Your task to perform on an android device: allow cookies in the chrome app Image 0: 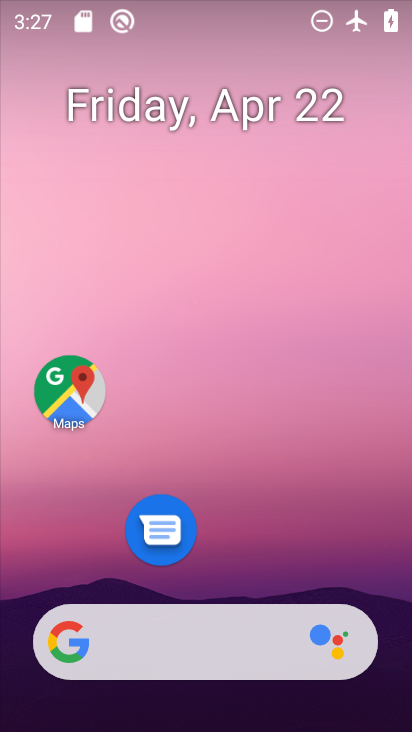
Step 0: drag from (235, 492) to (226, 43)
Your task to perform on an android device: allow cookies in the chrome app Image 1: 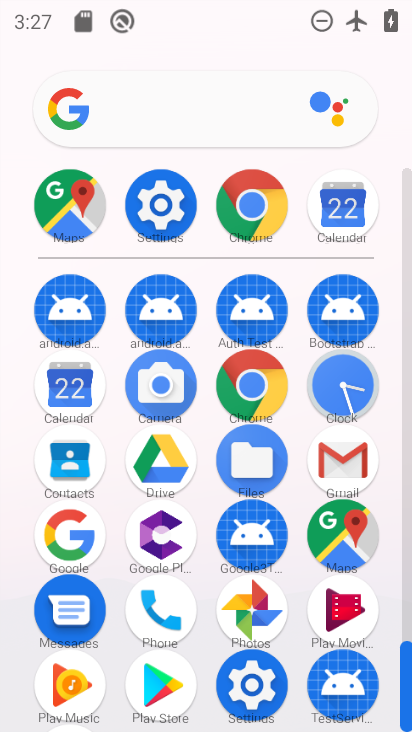
Step 1: click (253, 199)
Your task to perform on an android device: allow cookies in the chrome app Image 2: 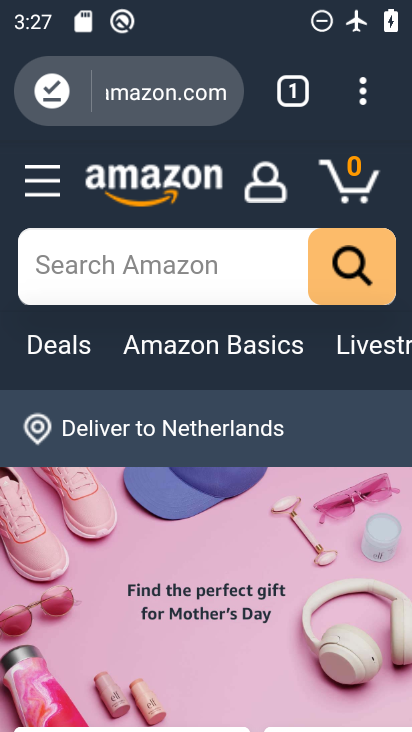
Step 2: click (358, 106)
Your task to perform on an android device: allow cookies in the chrome app Image 3: 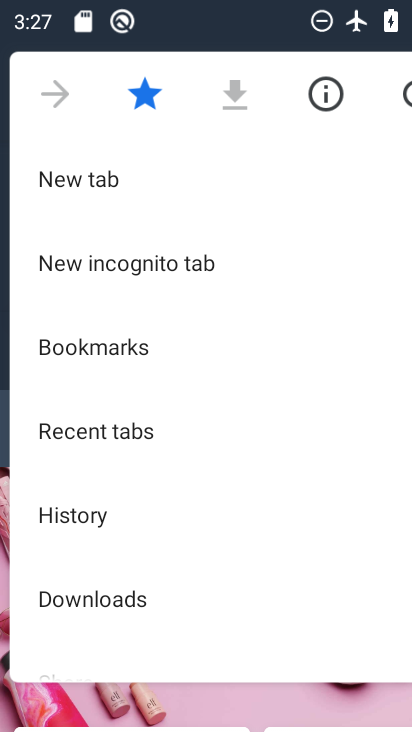
Step 3: drag from (113, 535) to (138, 215)
Your task to perform on an android device: allow cookies in the chrome app Image 4: 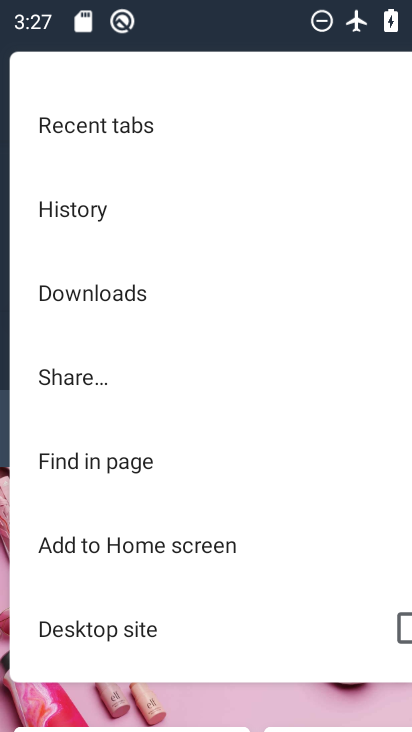
Step 4: drag from (161, 556) to (134, 136)
Your task to perform on an android device: allow cookies in the chrome app Image 5: 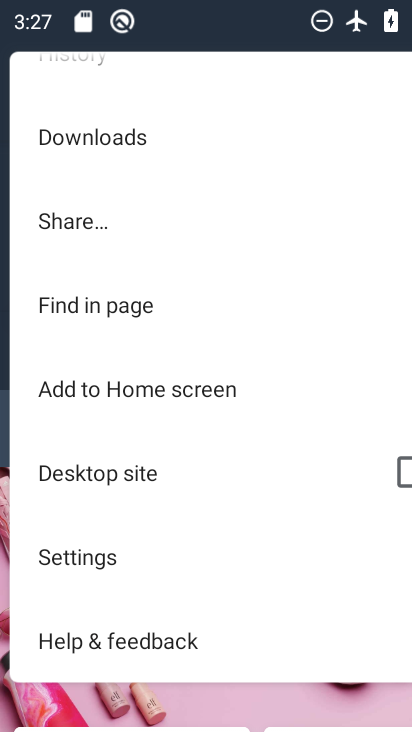
Step 5: click (94, 553)
Your task to perform on an android device: allow cookies in the chrome app Image 6: 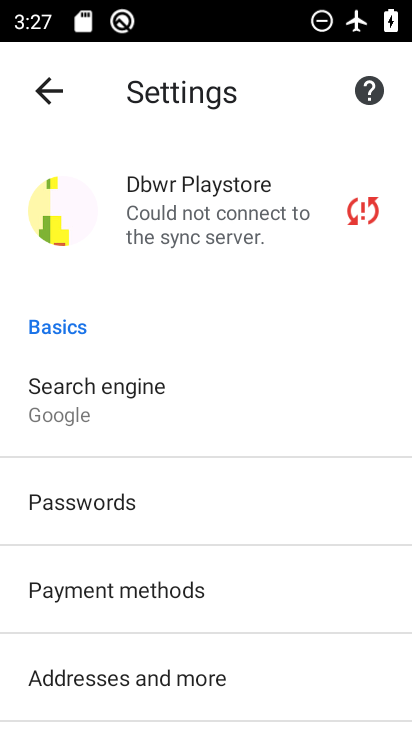
Step 6: drag from (194, 553) to (162, 219)
Your task to perform on an android device: allow cookies in the chrome app Image 7: 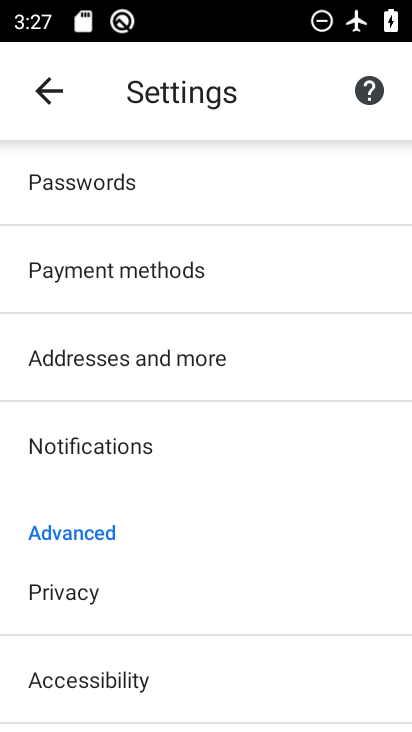
Step 7: drag from (215, 532) to (202, 173)
Your task to perform on an android device: allow cookies in the chrome app Image 8: 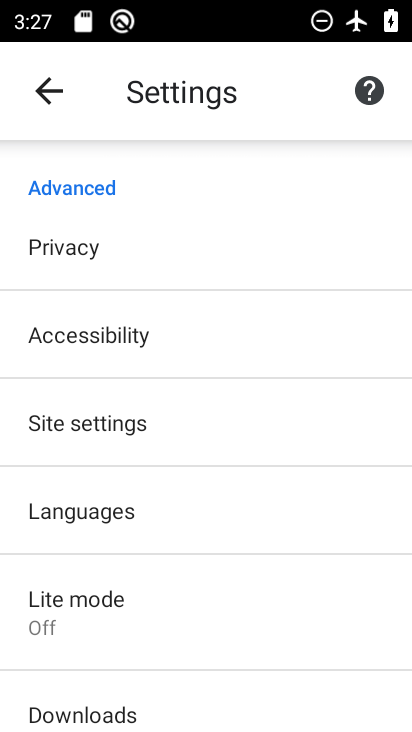
Step 8: drag from (166, 589) to (166, 164)
Your task to perform on an android device: allow cookies in the chrome app Image 9: 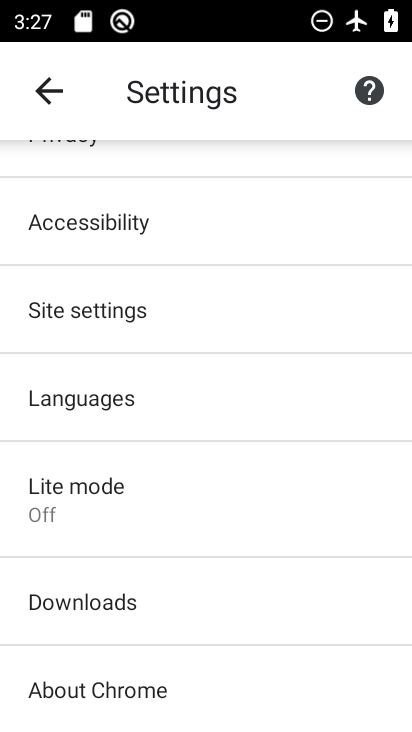
Step 9: click (107, 320)
Your task to perform on an android device: allow cookies in the chrome app Image 10: 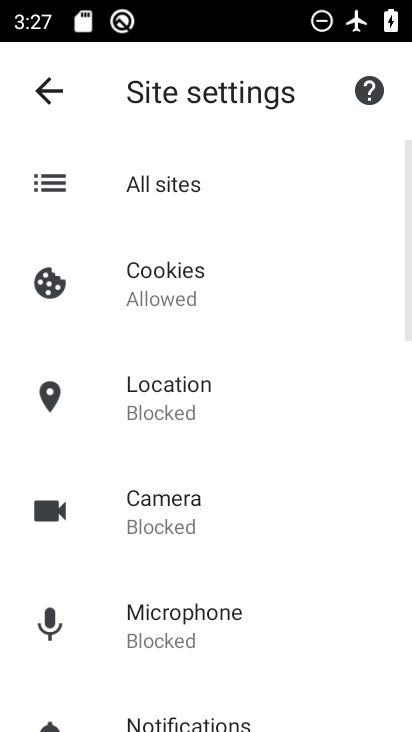
Step 10: click (170, 287)
Your task to perform on an android device: allow cookies in the chrome app Image 11: 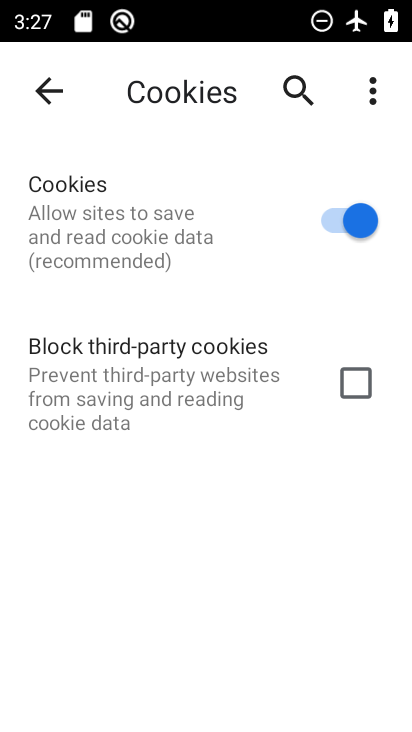
Step 11: task complete